Your task to perform on an android device: Go to Google Image 0: 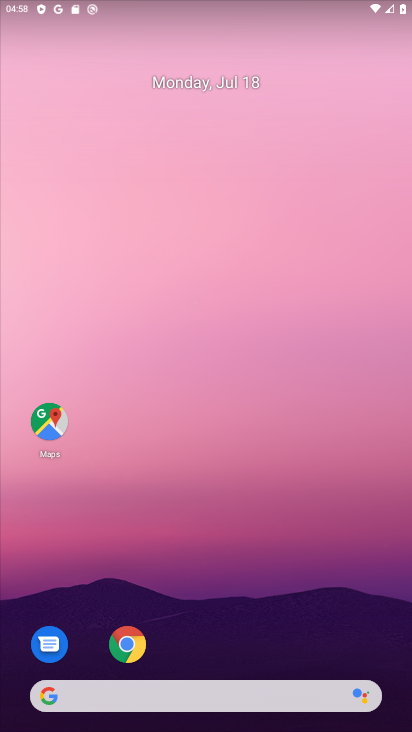
Step 0: press home button
Your task to perform on an android device: Go to Google Image 1: 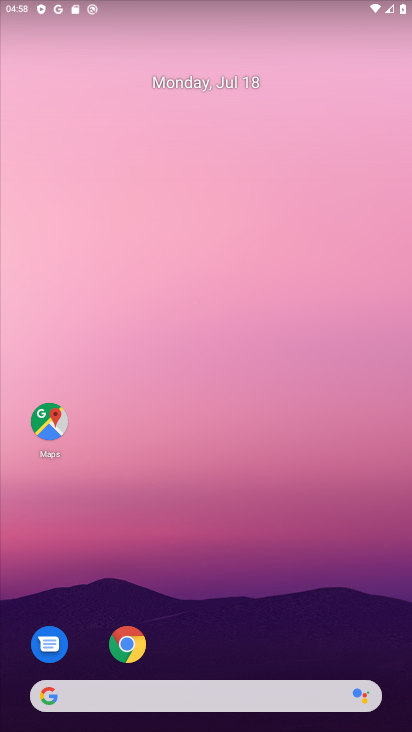
Step 1: click (59, 689)
Your task to perform on an android device: Go to Google Image 2: 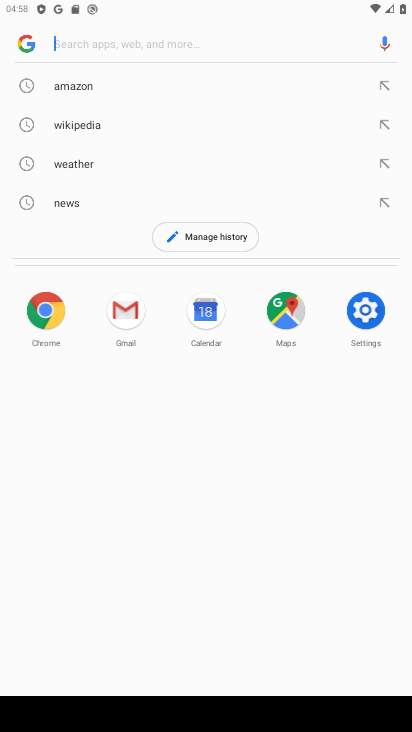
Step 2: task complete